Your task to perform on an android device: Open calendar and show me the fourth week of next month Image 0: 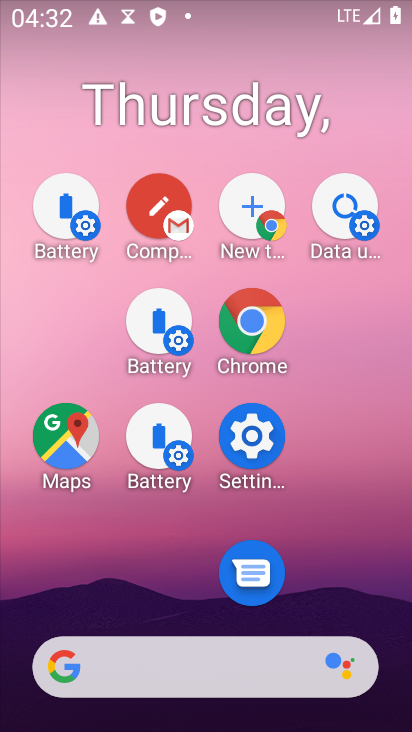
Step 0: drag from (248, 636) to (257, 329)
Your task to perform on an android device: Open calendar and show me the fourth week of next month Image 1: 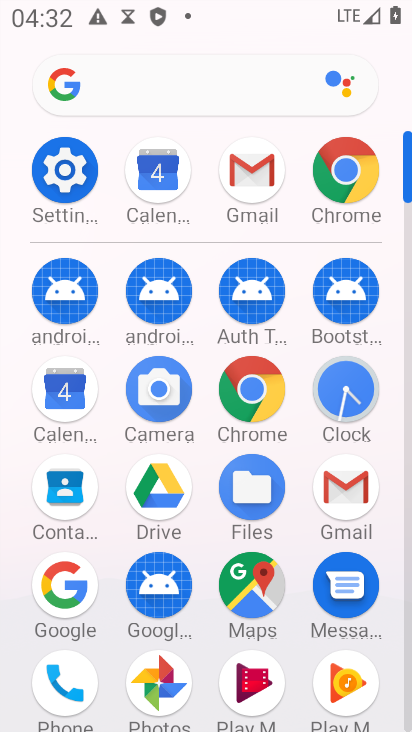
Step 1: click (63, 397)
Your task to perform on an android device: Open calendar and show me the fourth week of next month Image 2: 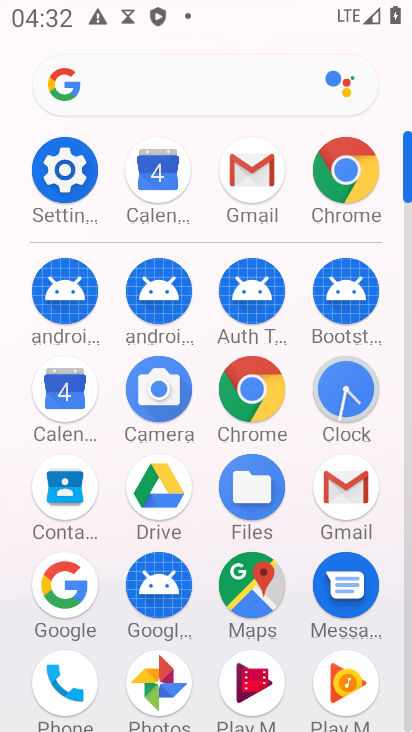
Step 2: click (67, 399)
Your task to perform on an android device: Open calendar and show me the fourth week of next month Image 3: 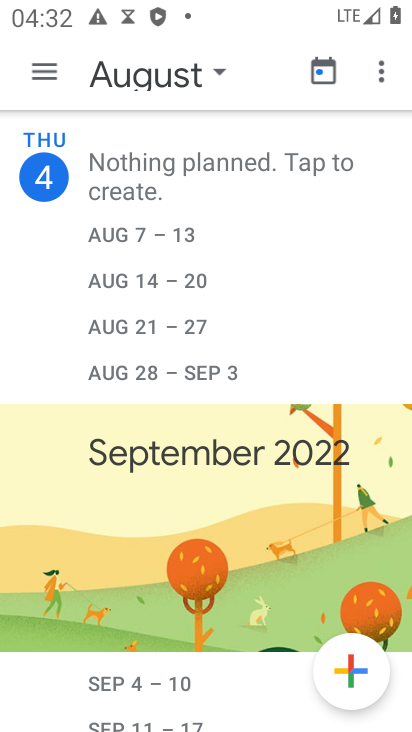
Step 3: drag from (222, 61) to (216, 290)
Your task to perform on an android device: Open calendar and show me the fourth week of next month Image 4: 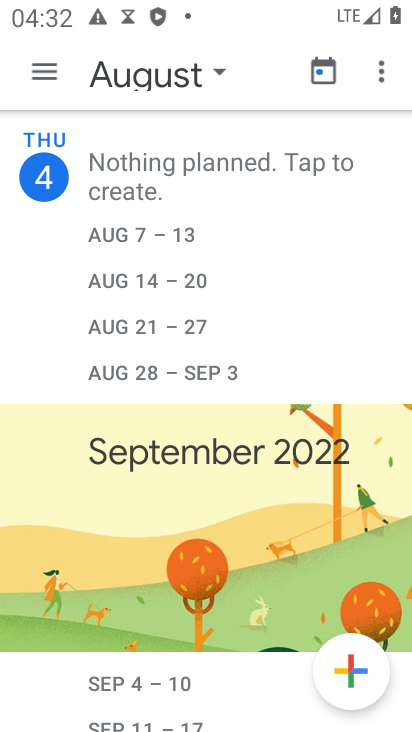
Step 4: drag from (212, 73) to (214, 551)
Your task to perform on an android device: Open calendar and show me the fourth week of next month Image 5: 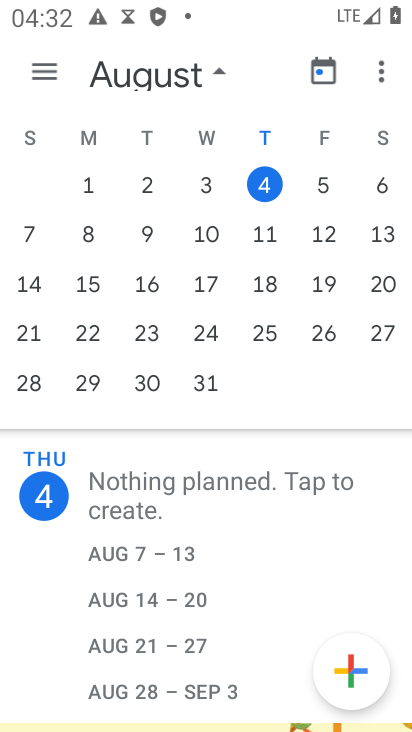
Step 5: drag from (218, 68) to (278, 582)
Your task to perform on an android device: Open calendar and show me the fourth week of next month Image 6: 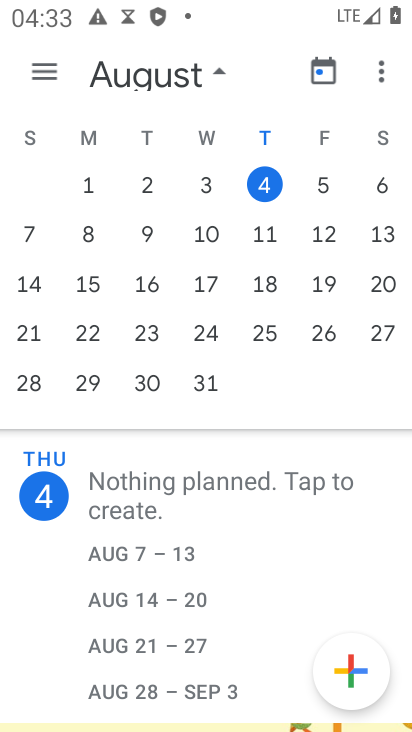
Step 6: drag from (301, 243) to (24, 233)
Your task to perform on an android device: Open calendar and show me the fourth week of next month Image 7: 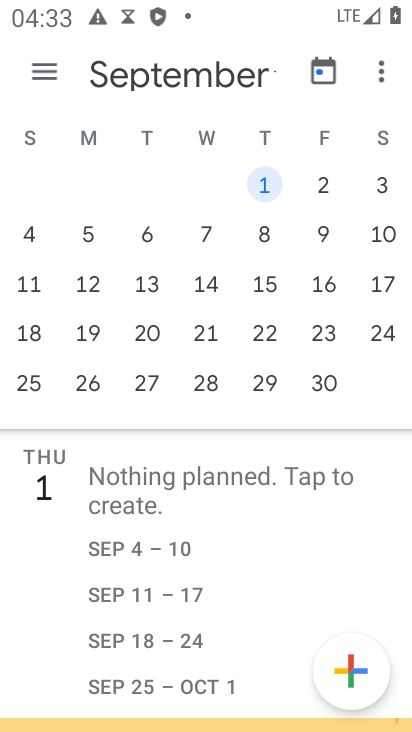
Step 7: click (265, 328)
Your task to perform on an android device: Open calendar and show me the fourth week of next month Image 8: 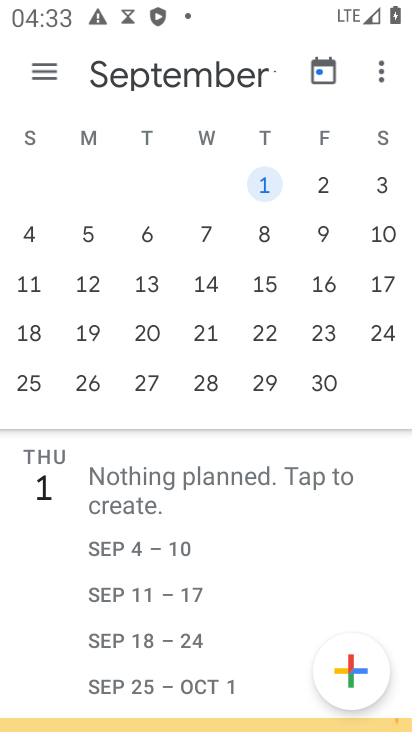
Step 8: click (265, 328)
Your task to perform on an android device: Open calendar and show me the fourth week of next month Image 9: 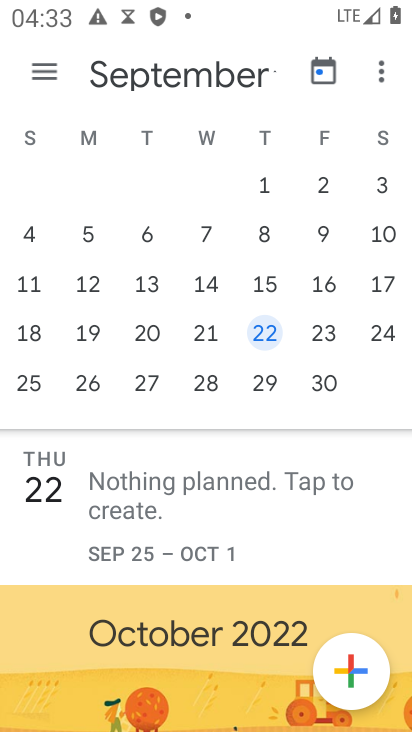
Step 9: click (265, 328)
Your task to perform on an android device: Open calendar and show me the fourth week of next month Image 10: 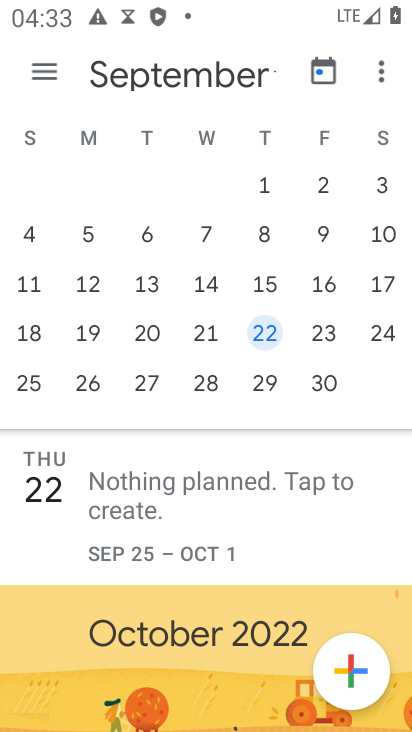
Step 10: click (265, 330)
Your task to perform on an android device: Open calendar and show me the fourth week of next month Image 11: 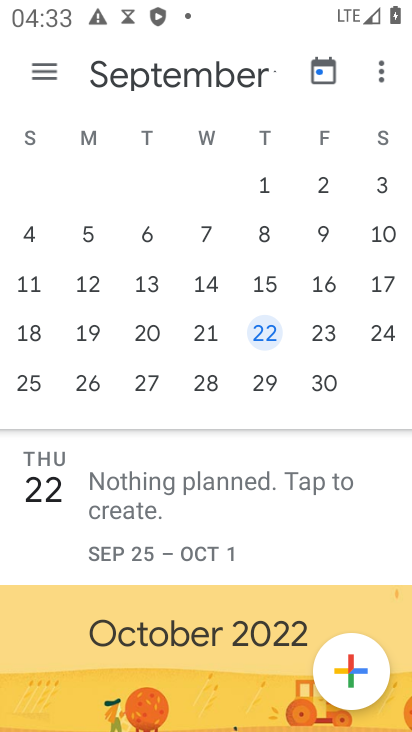
Step 11: click (269, 329)
Your task to perform on an android device: Open calendar and show me the fourth week of next month Image 12: 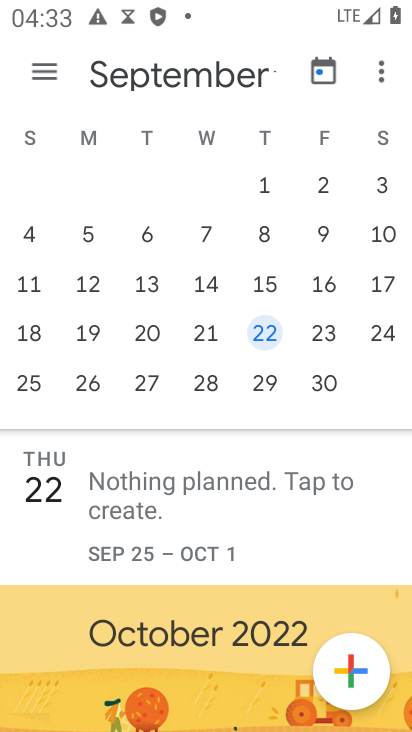
Step 12: task complete